Your task to perform on an android device: Show me productivity apps on the Play Store Image 0: 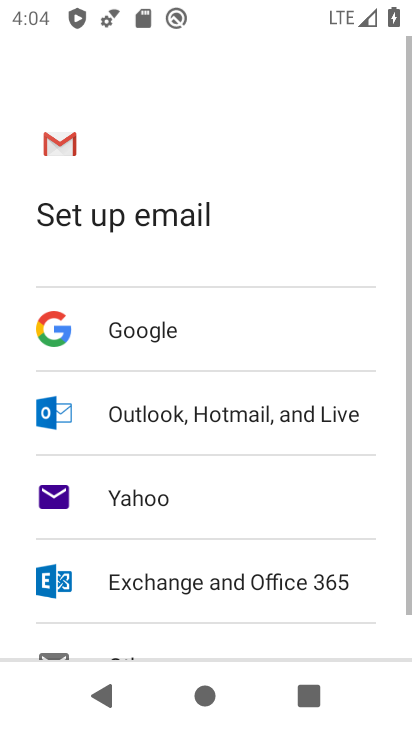
Step 0: click (279, 374)
Your task to perform on an android device: Show me productivity apps on the Play Store Image 1: 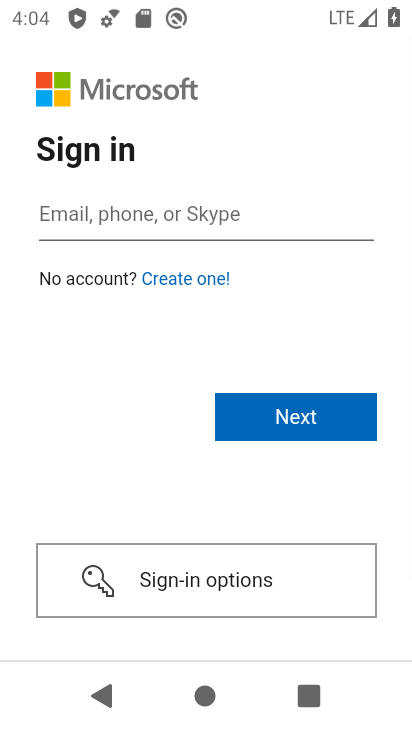
Step 1: press home button
Your task to perform on an android device: Show me productivity apps on the Play Store Image 2: 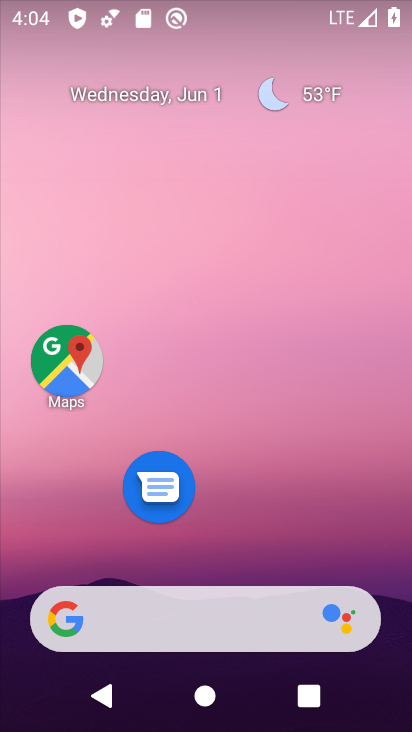
Step 2: drag from (243, 538) to (282, 3)
Your task to perform on an android device: Show me productivity apps on the Play Store Image 3: 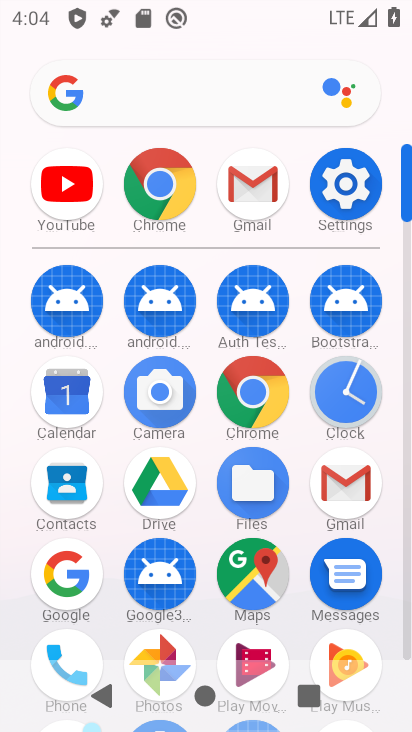
Step 3: drag from (212, 606) to (203, 8)
Your task to perform on an android device: Show me productivity apps on the Play Store Image 4: 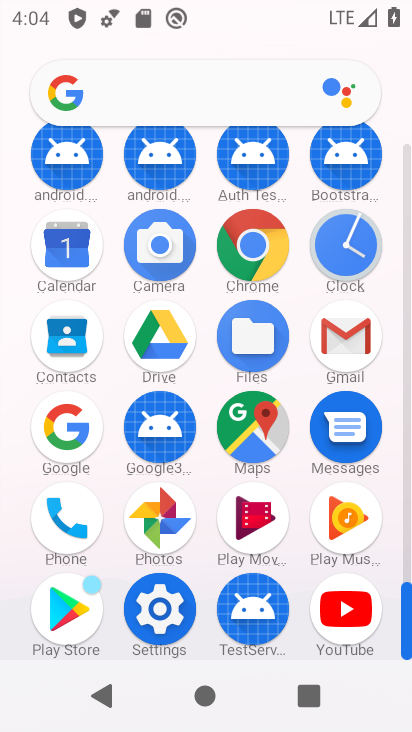
Step 4: click (50, 617)
Your task to perform on an android device: Show me productivity apps on the Play Store Image 5: 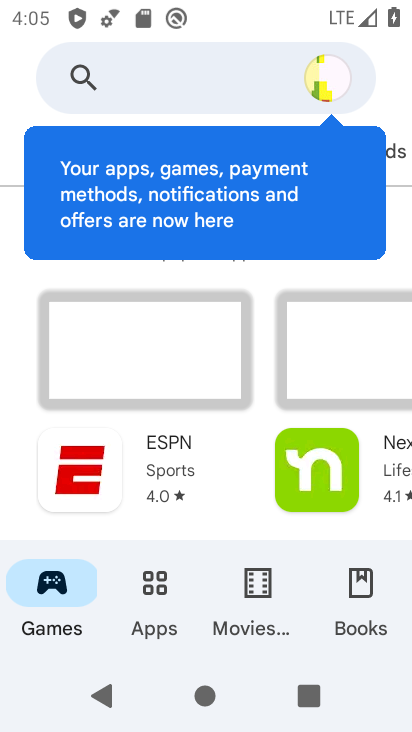
Step 5: click (144, 604)
Your task to perform on an android device: Show me productivity apps on the Play Store Image 6: 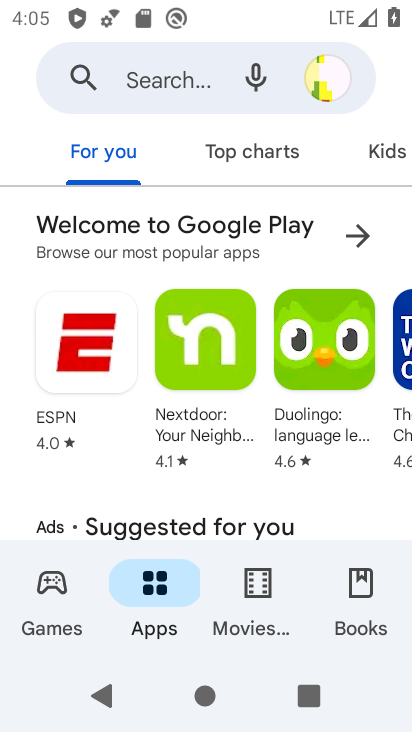
Step 6: drag from (384, 152) to (18, 128)
Your task to perform on an android device: Show me productivity apps on the Play Store Image 7: 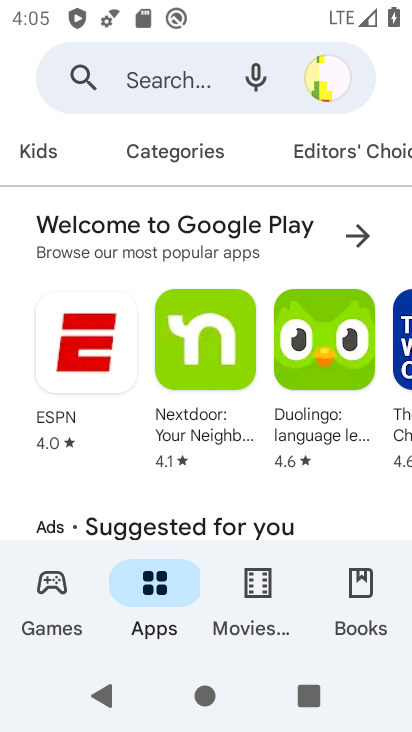
Step 7: click (157, 158)
Your task to perform on an android device: Show me productivity apps on the Play Store Image 8: 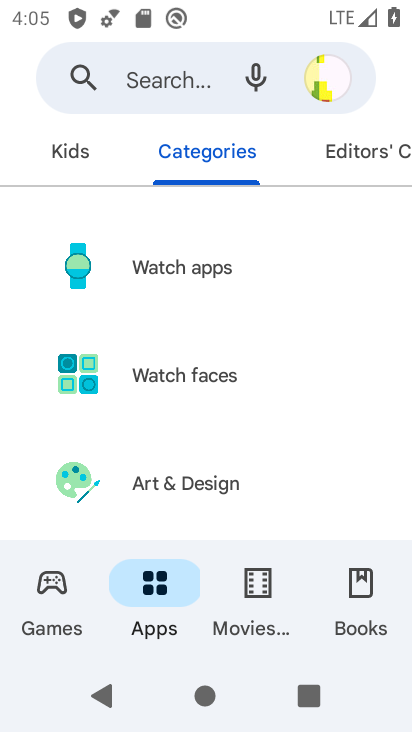
Step 8: drag from (185, 476) to (291, 0)
Your task to perform on an android device: Show me productivity apps on the Play Store Image 9: 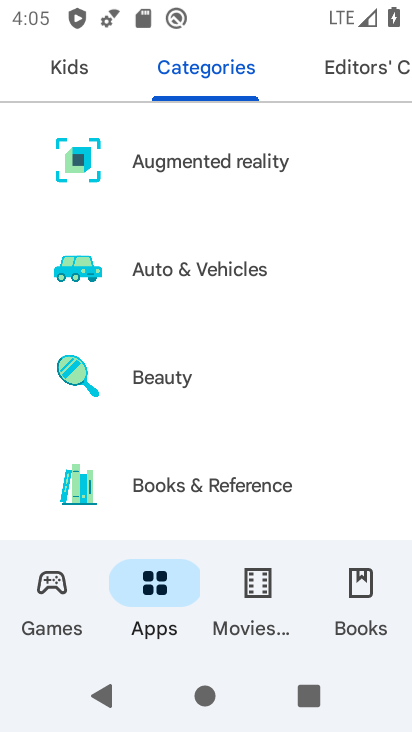
Step 9: drag from (237, 373) to (317, 0)
Your task to perform on an android device: Show me productivity apps on the Play Store Image 10: 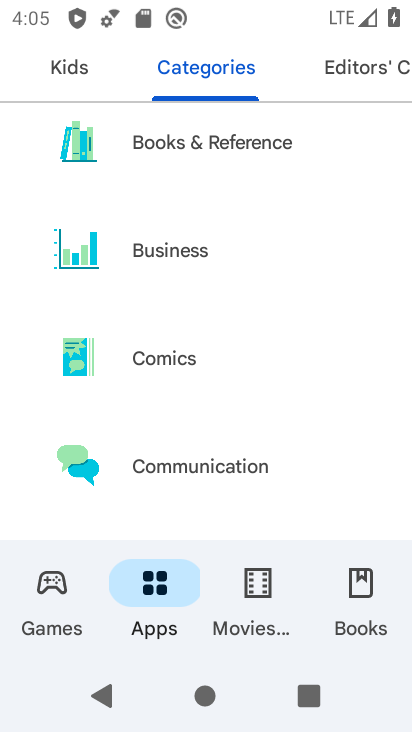
Step 10: drag from (233, 418) to (362, 21)
Your task to perform on an android device: Show me productivity apps on the Play Store Image 11: 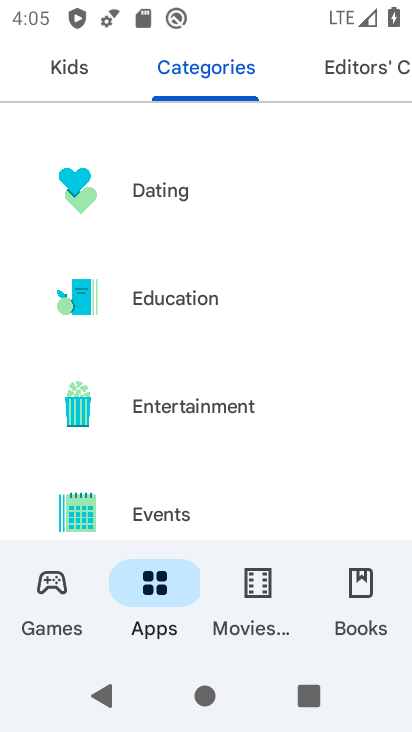
Step 11: drag from (208, 516) to (221, 203)
Your task to perform on an android device: Show me productivity apps on the Play Store Image 12: 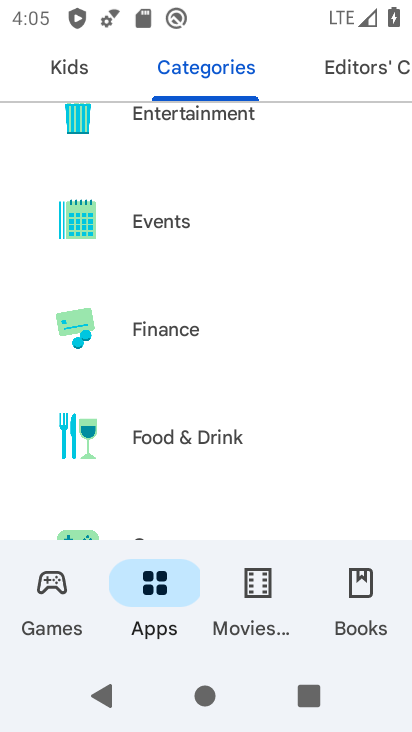
Step 12: drag from (249, 477) to (385, 6)
Your task to perform on an android device: Show me productivity apps on the Play Store Image 13: 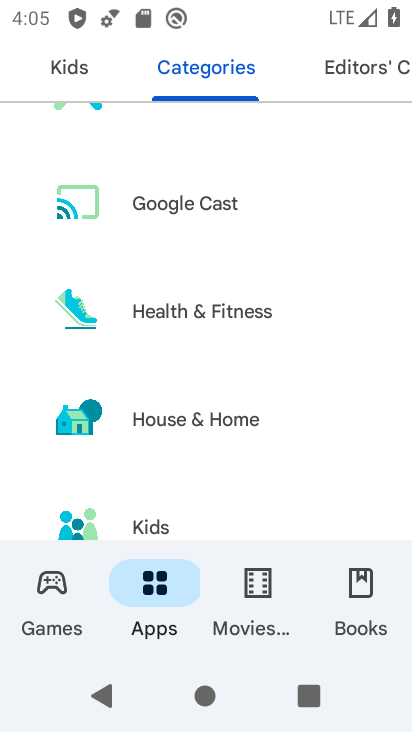
Step 13: drag from (236, 449) to (320, 8)
Your task to perform on an android device: Show me productivity apps on the Play Store Image 14: 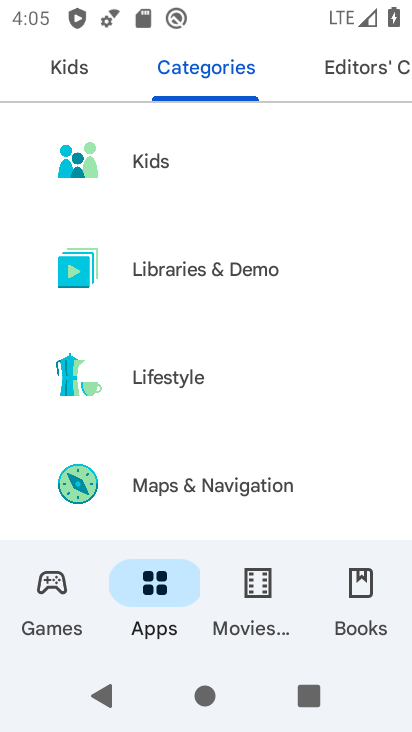
Step 14: drag from (221, 475) to (303, 14)
Your task to perform on an android device: Show me productivity apps on the Play Store Image 15: 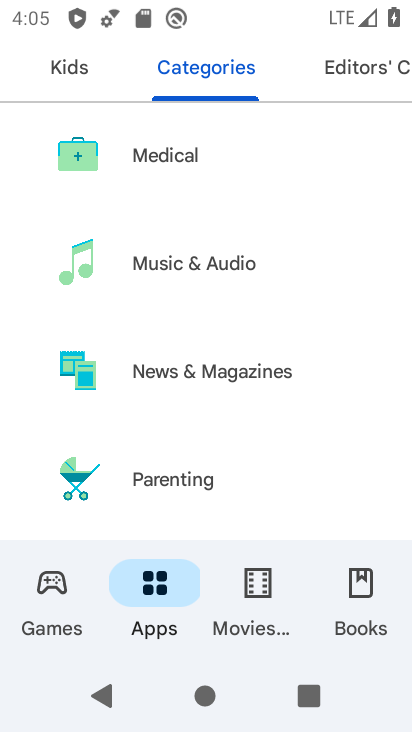
Step 15: drag from (237, 499) to (323, 7)
Your task to perform on an android device: Show me productivity apps on the Play Store Image 16: 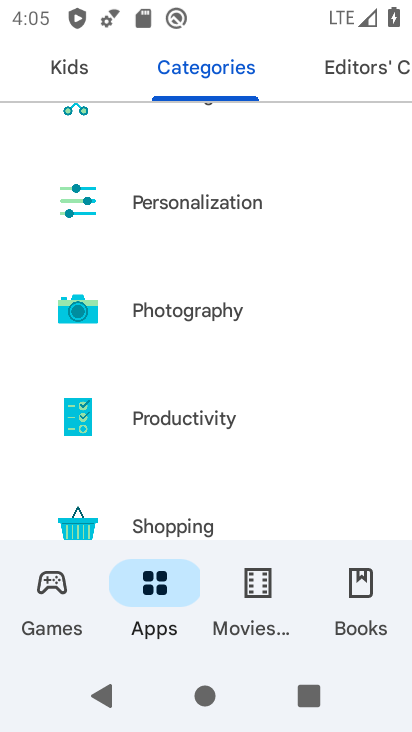
Step 16: click (208, 420)
Your task to perform on an android device: Show me productivity apps on the Play Store Image 17: 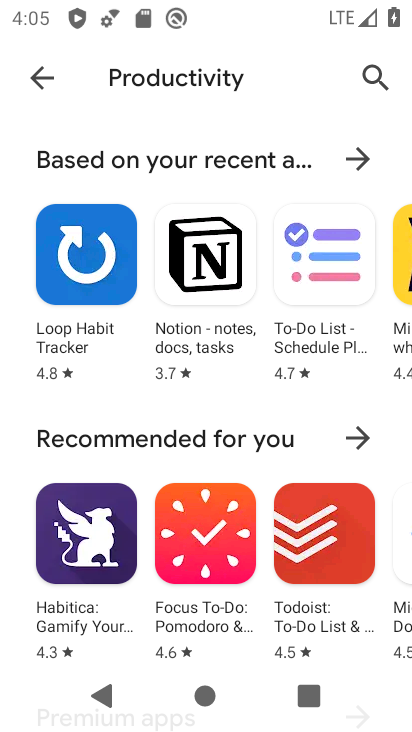
Step 17: task complete